Your task to perform on an android device: Open the map Image 0: 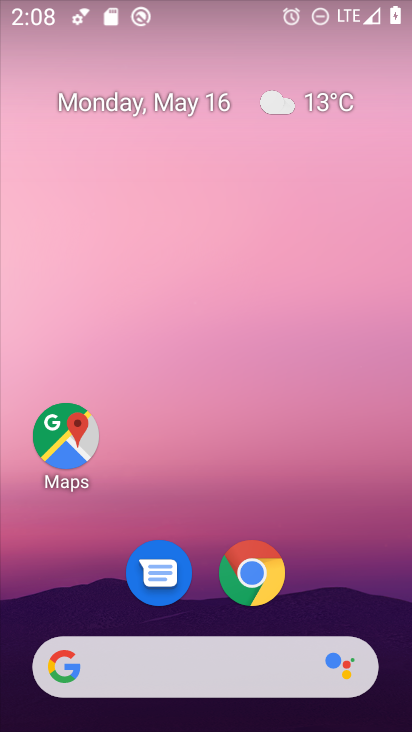
Step 0: click (73, 450)
Your task to perform on an android device: Open the map Image 1: 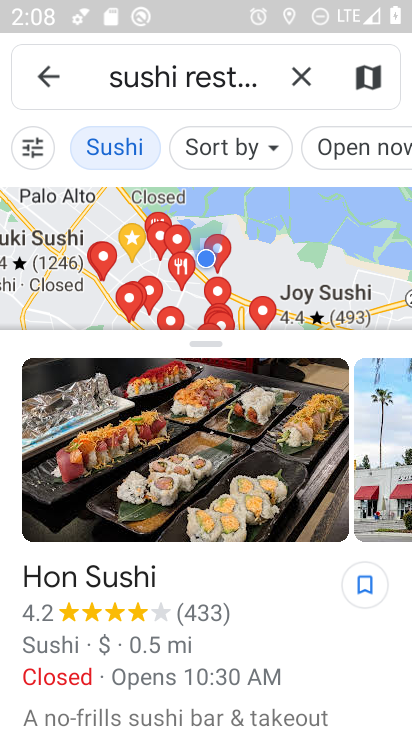
Step 1: task complete